Your task to perform on an android device: What's on my calendar tomorrow? Image 0: 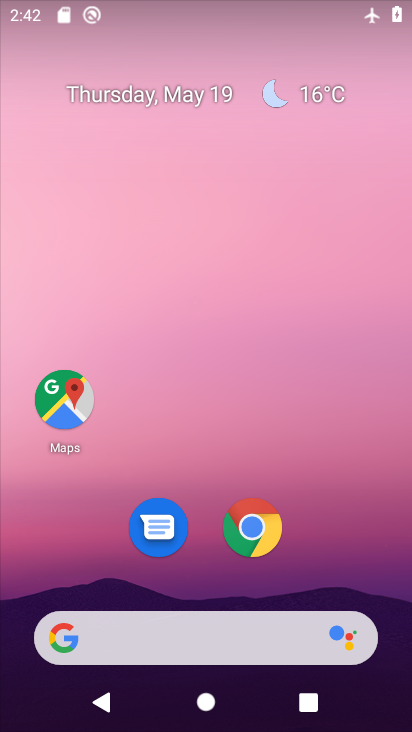
Step 0: click (159, 91)
Your task to perform on an android device: What's on my calendar tomorrow? Image 1: 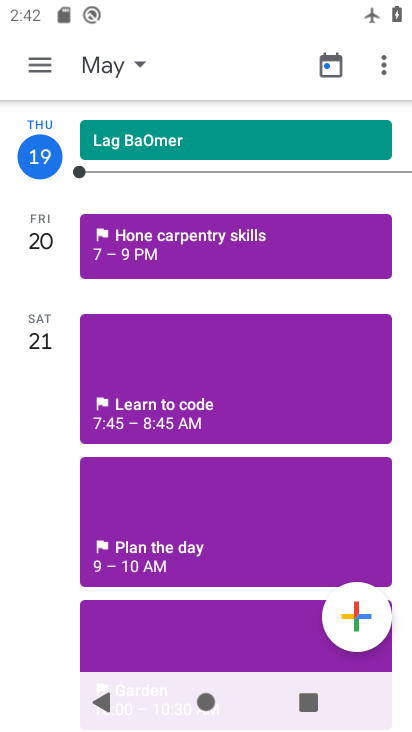
Step 1: task complete